Your task to perform on an android device: Open Chrome and go to settings Image 0: 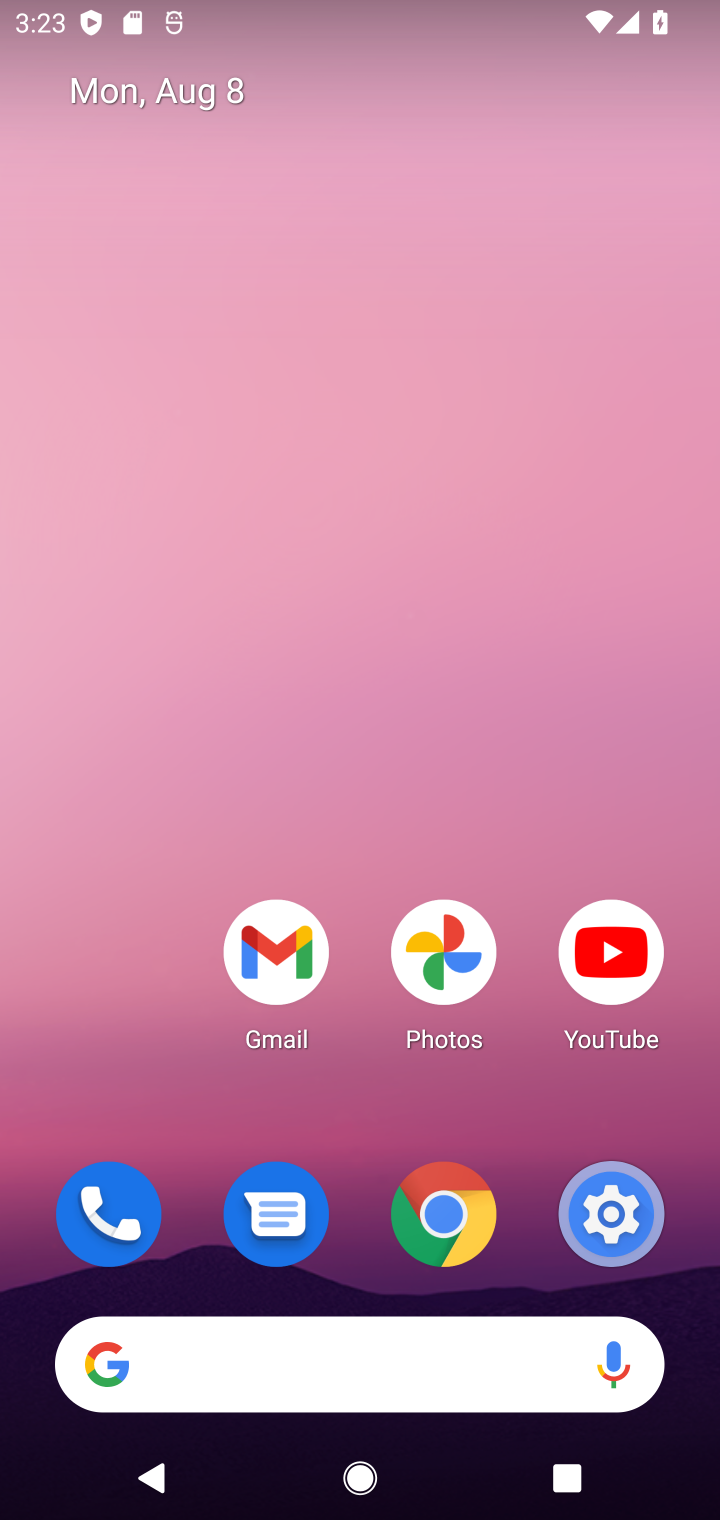
Step 0: click (451, 1210)
Your task to perform on an android device: Open Chrome and go to settings Image 1: 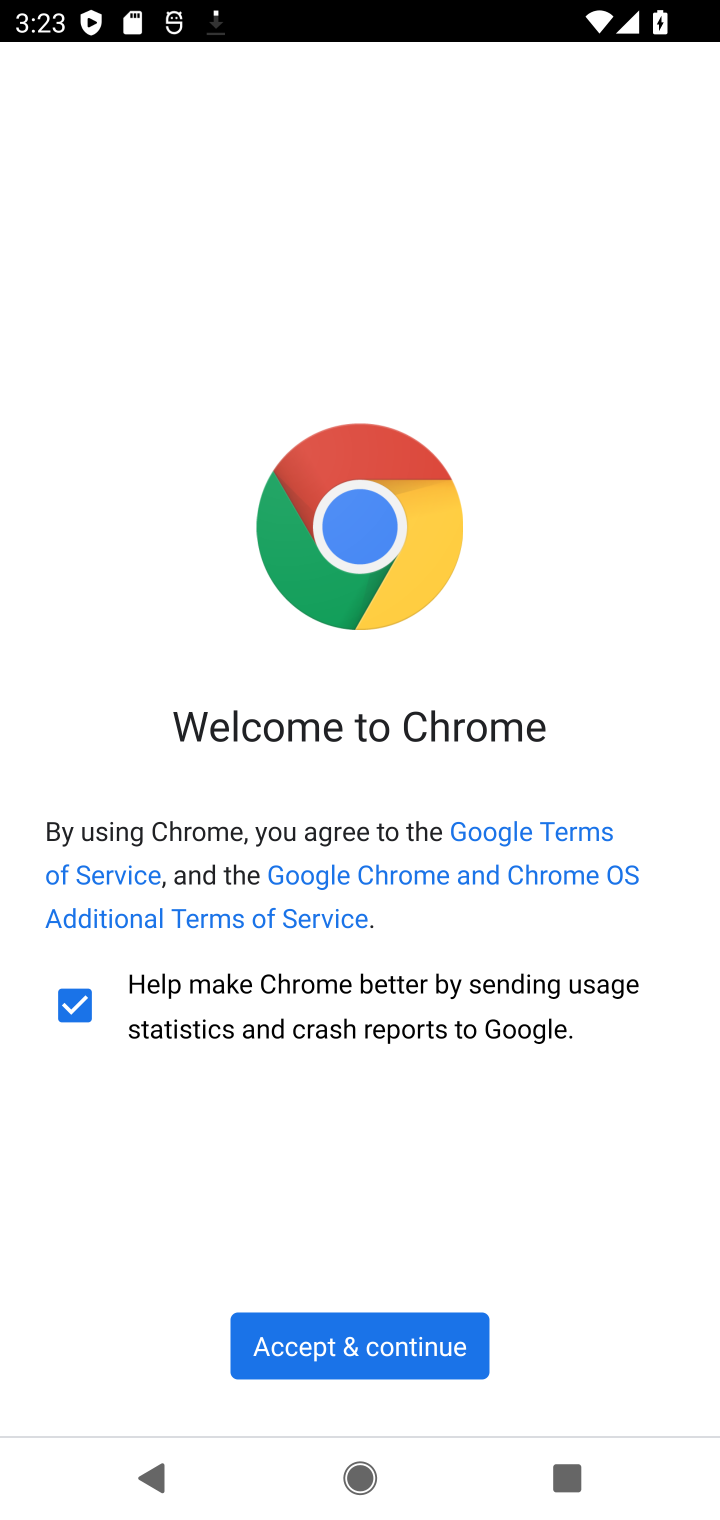
Step 1: click (364, 1361)
Your task to perform on an android device: Open Chrome and go to settings Image 2: 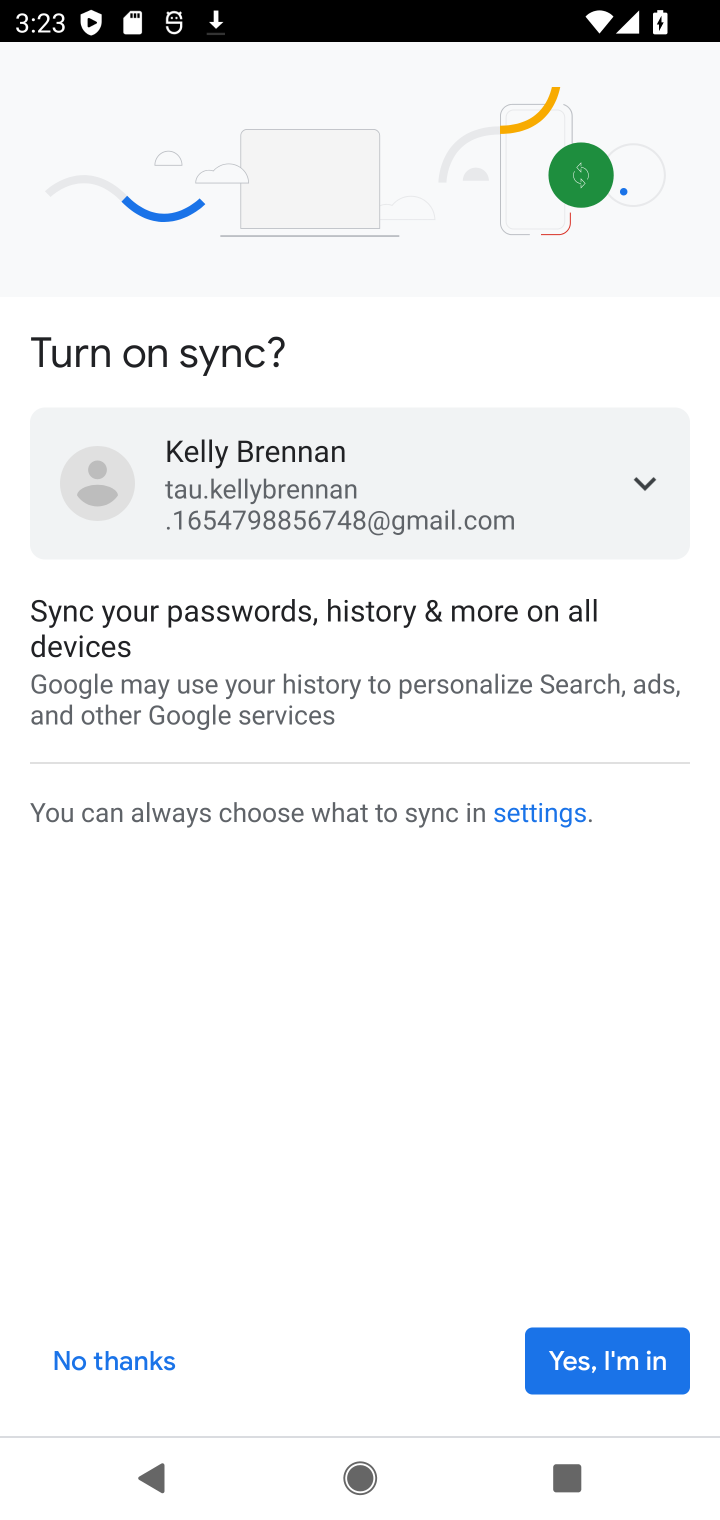
Step 2: click (596, 1371)
Your task to perform on an android device: Open Chrome and go to settings Image 3: 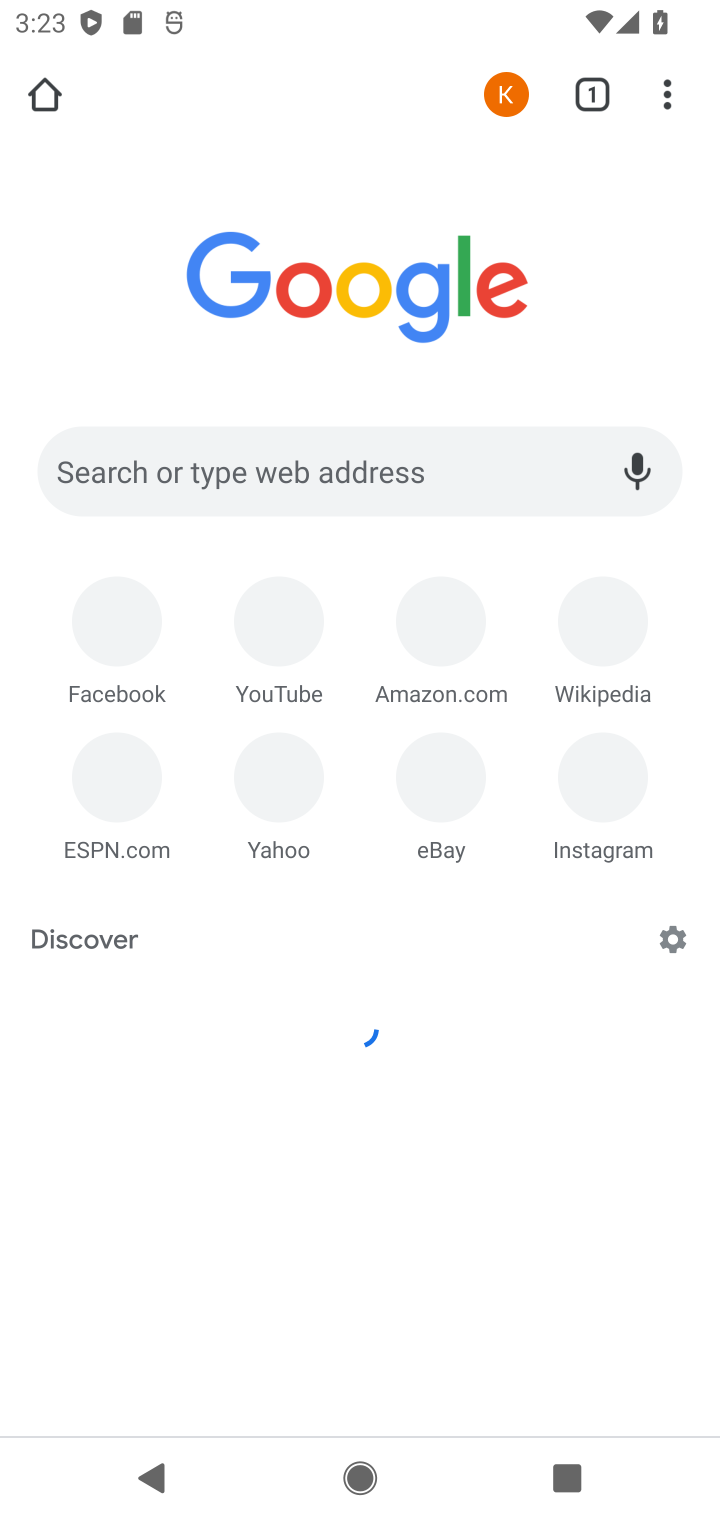
Step 3: click (670, 104)
Your task to perform on an android device: Open Chrome and go to settings Image 4: 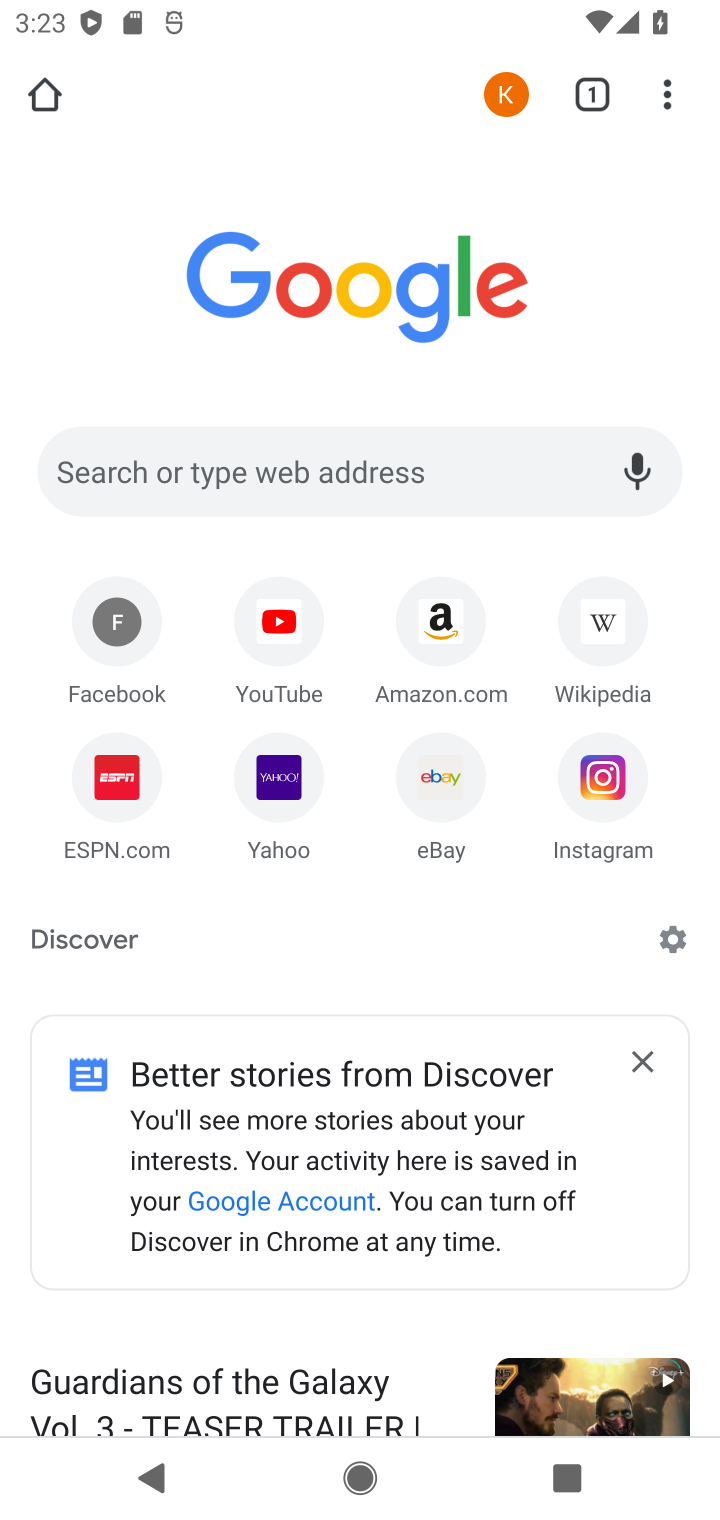
Step 4: click (668, 102)
Your task to perform on an android device: Open Chrome and go to settings Image 5: 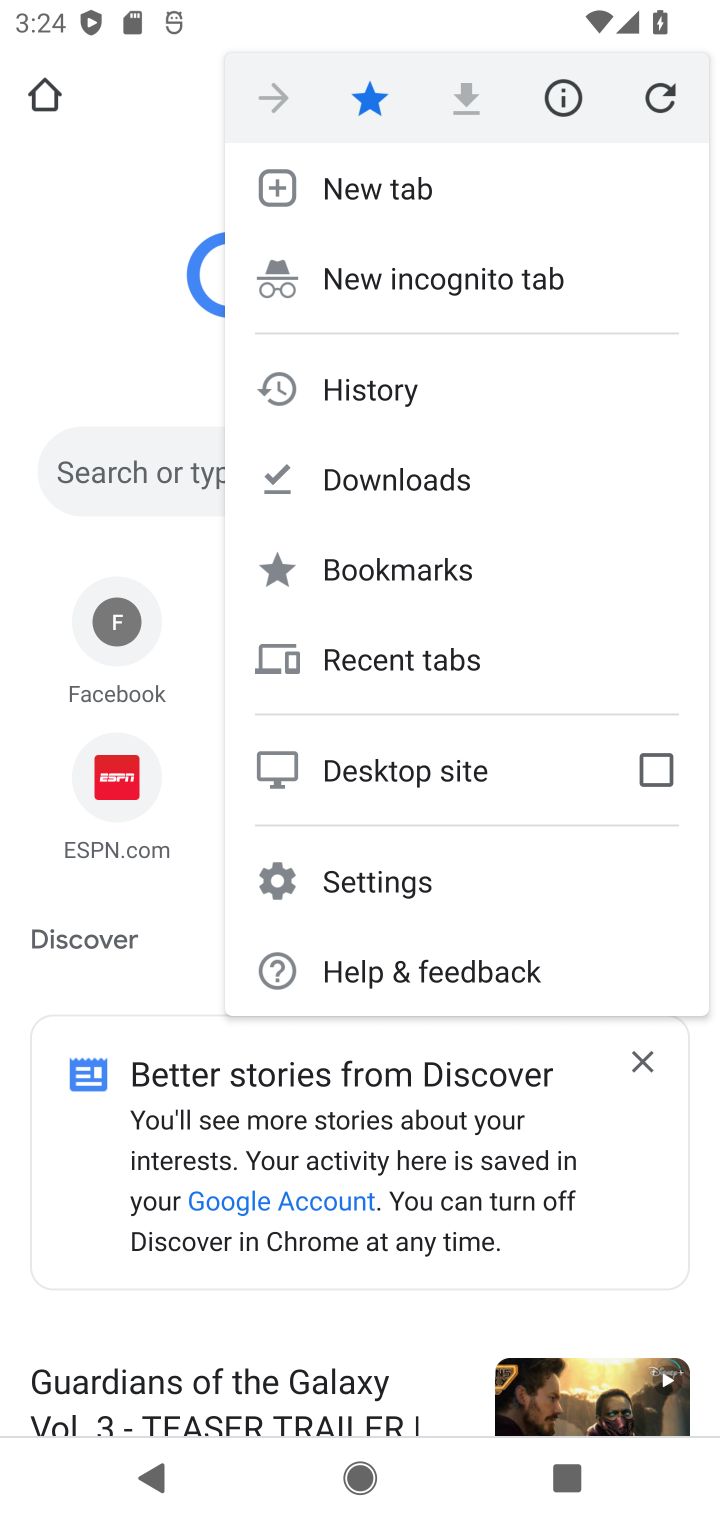
Step 5: click (381, 875)
Your task to perform on an android device: Open Chrome and go to settings Image 6: 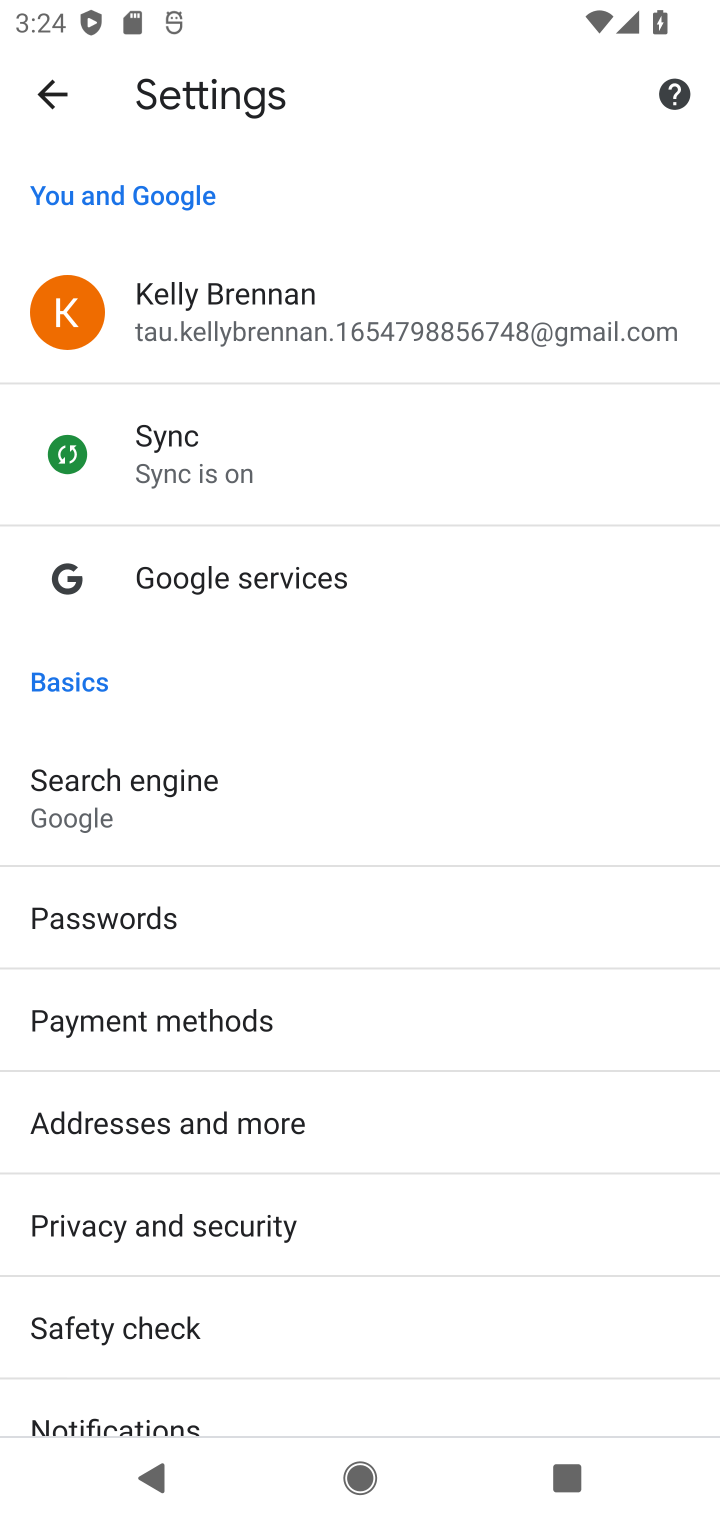
Step 6: task complete